Your task to perform on an android device: Is it going to rain this weekend? Image 0: 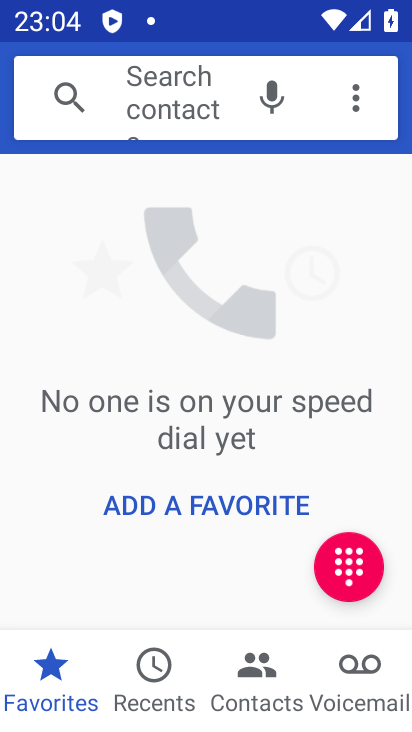
Step 0: press home button
Your task to perform on an android device: Is it going to rain this weekend? Image 1: 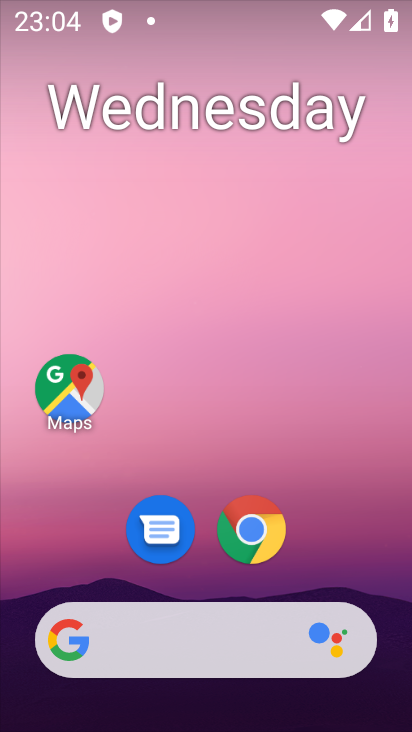
Step 1: click (254, 630)
Your task to perform on an android device: Is it going to rain this weekend? Image 2: 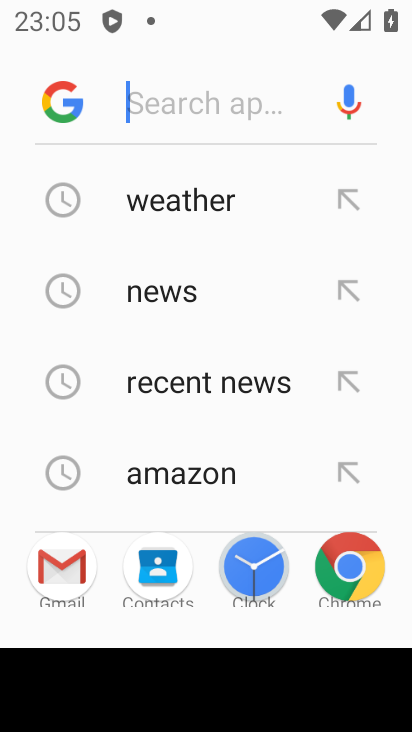
Step 2: click (217, 206)
Your task to perform on an android device: Is it going to rain this weekend? Image 3: 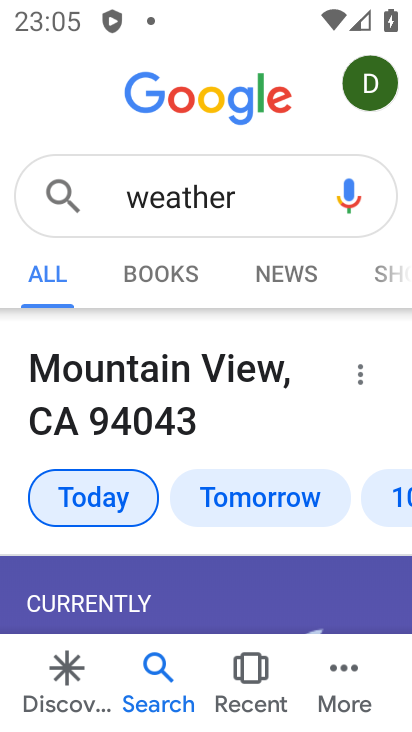
Step 3: click (397, 501)
Your task to perform on an android device: Is it going to rain this weekend? Image 4: 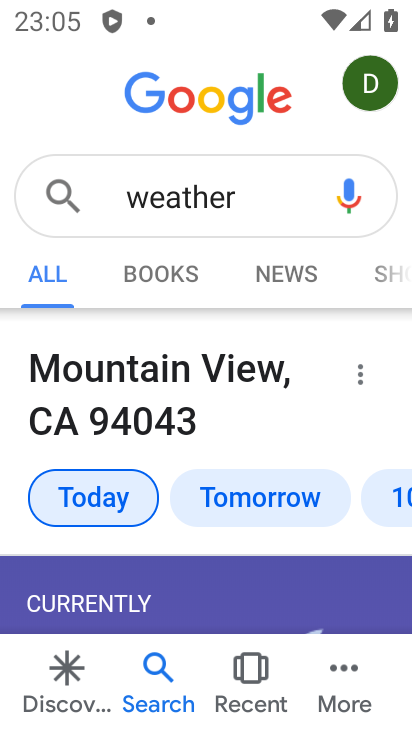
Step 4: click (397, 501)
Your task to perform on an android device: Is it going to rain this weekend? Image 5: 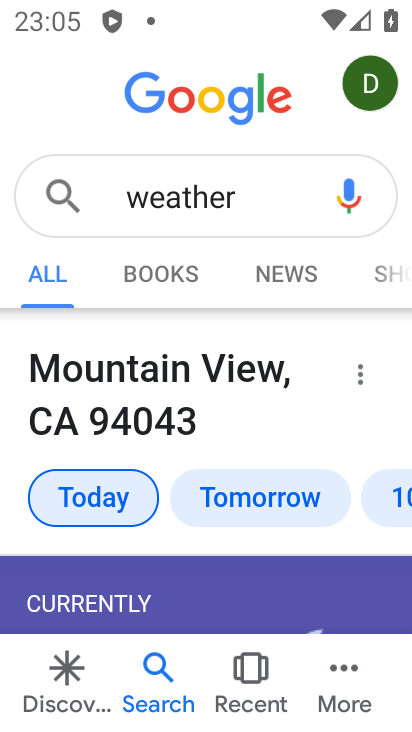
Step 5: click (397, 501)
Your task to perform on an android device: Is it going to rain this weekend? Image 6: 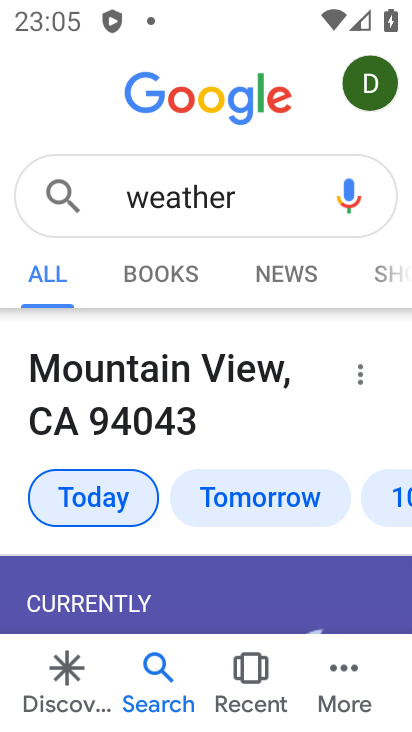
Step 6: click (397, 501)
Your task to perform on an android device: Is it going to rain this weekend? Image 7: 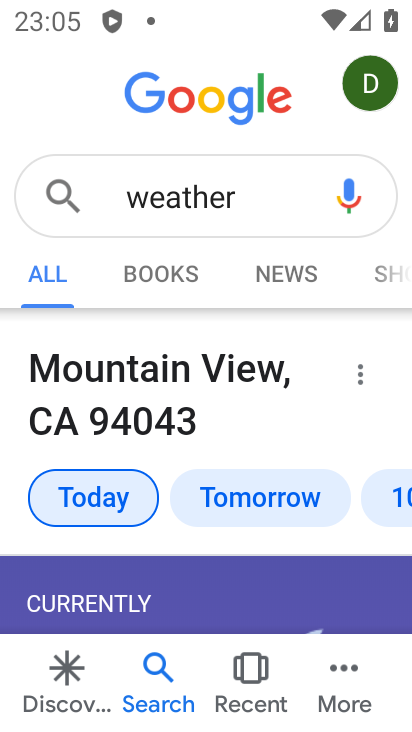
Step 7: click (397, 501)
Your task to perform on an android device: Is it going to rain this weekend? Image 8: 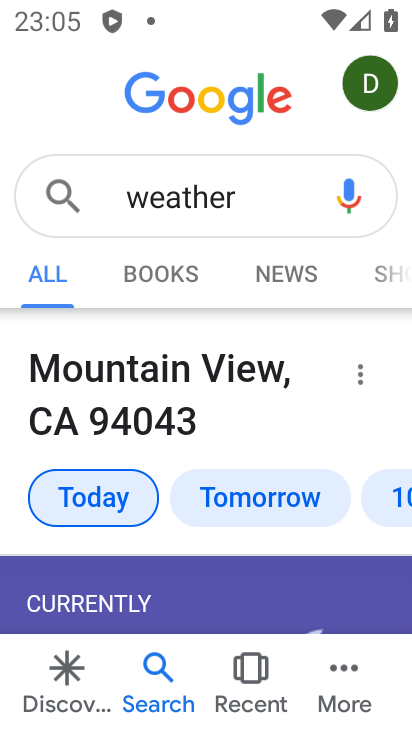
Step 8: click (397, 501)
Your task to perform on an android device: Is it going to rain this weekend? Image 9: 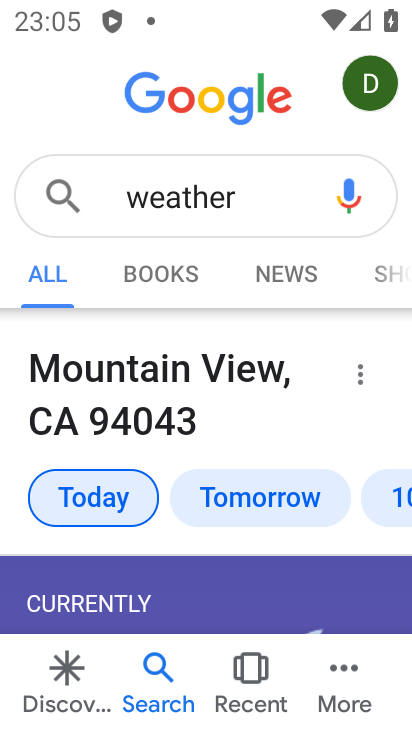
Step 9: task complete